Your task to perform on an android device: change the clock display to digital Image 0: 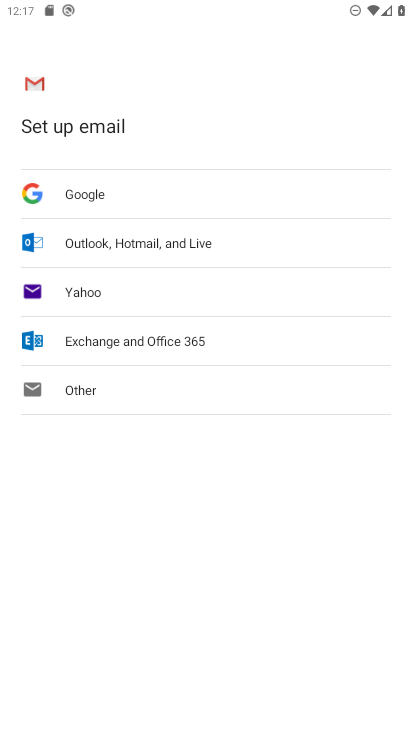
Step 0: drag from (240, 562) to (245, 385)
Your task to perform on an android device: change the clock display to digital Image 1: 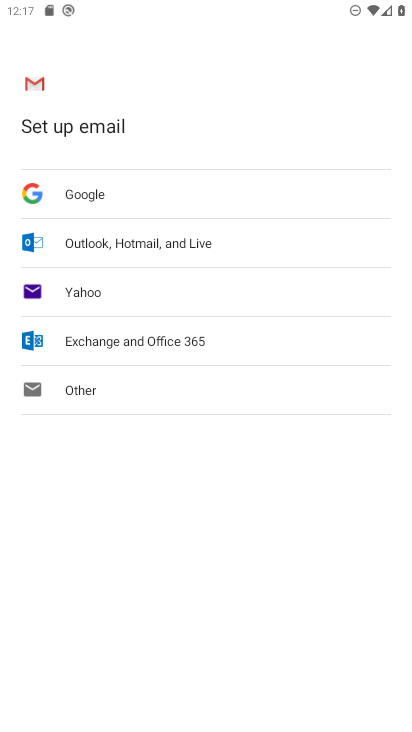
Step 1: press home button
Your task to perform on an android device: change the clock display to digital Image 2: 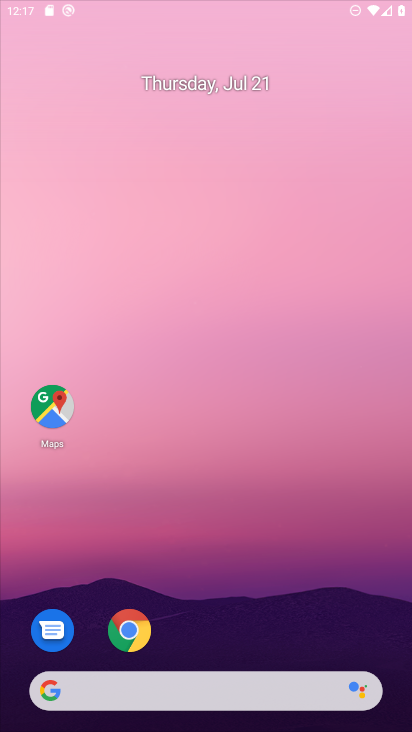
Step 2: drag from (187, 619) to (211, 319)
Your task to perform on an android device: change the clock display to digital Image 3: 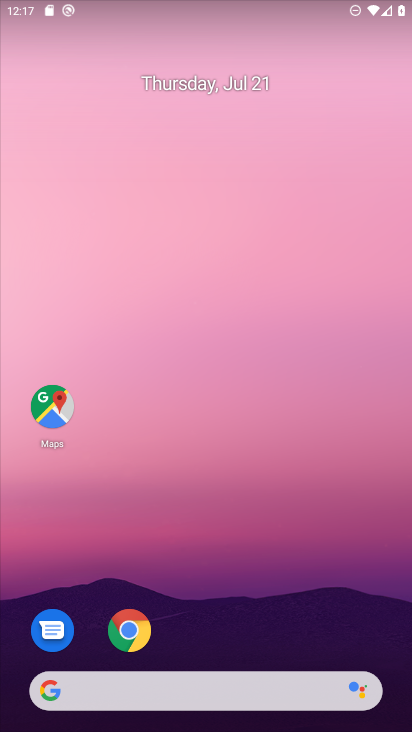
Step 3: drag from (203, 622) to (214, 248)
Your task to perform on an android device: change the clock display to digital Image 4: 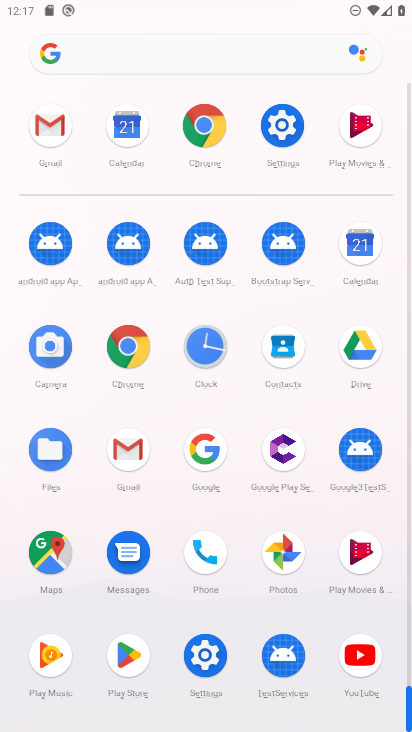
Step 4: click (194, 335)
Your task to perform on an android device: change the clock display to digital Image 5: 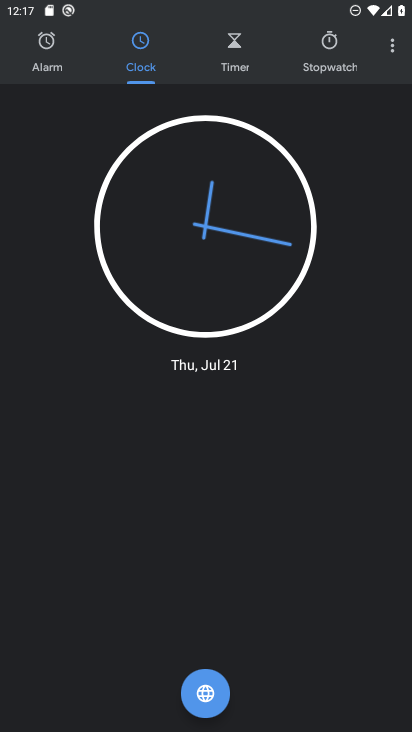
Step 5: drag from (58, 497) to (171, 152)
Your task to perform on an android device: change the clock display to digital Image 6: 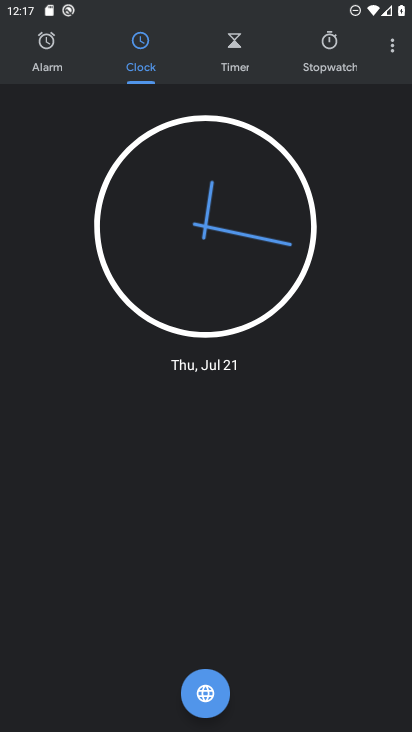
Step 6: click (382, 49)
Your task to perform on an android device: change the clock display to digital Image 7: 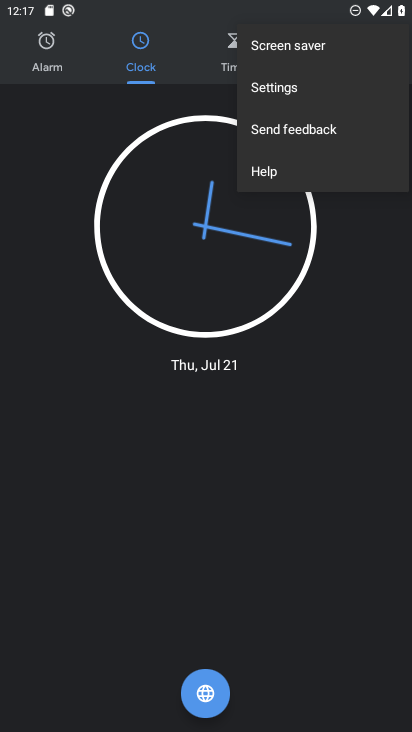
Step 7: click (316, 77)
Your task to perform on an android device: change the clock display to digital Image 8: 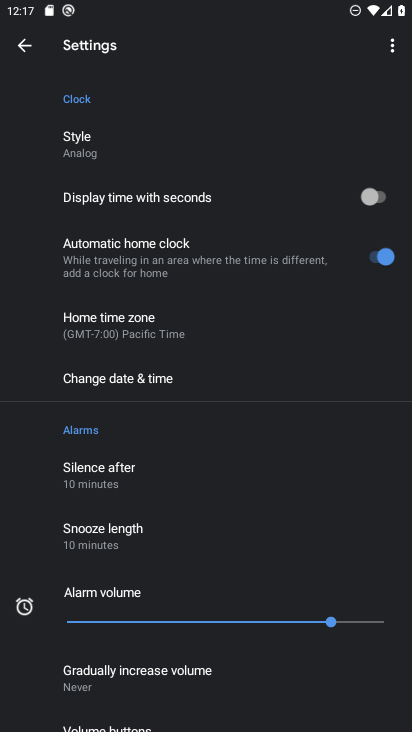
Step 8: click (161, 202)
Your task to perform on an android device: change the clock display to digital Image 9: 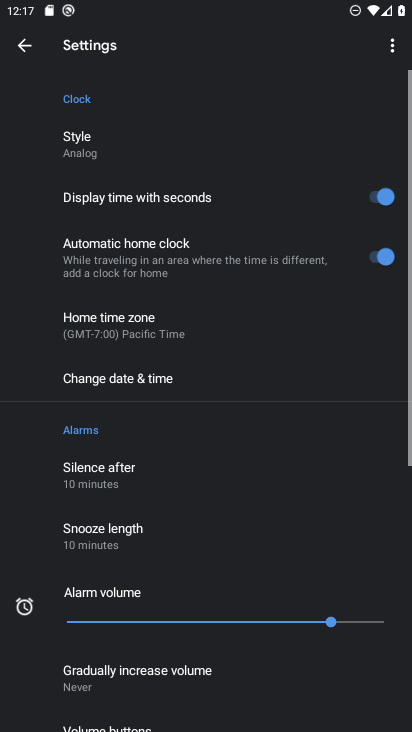
Step 9: click (296, 198)
Your task to perform on an android device: change the clock display to digital Image 10: 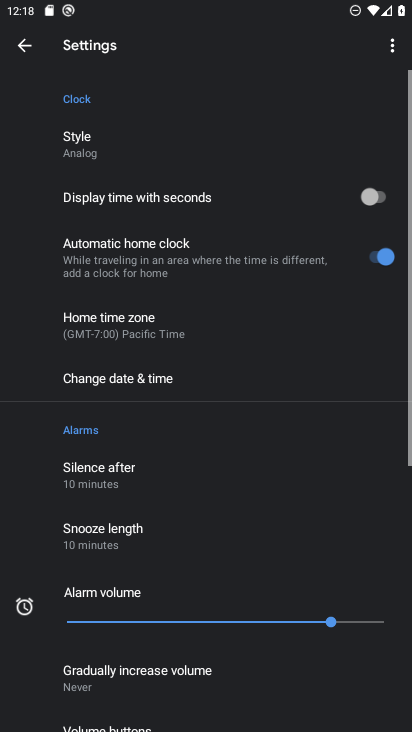
Step 10: click (97, 148)
Your task to perform on an android device: change the clock display to digital Image 11: 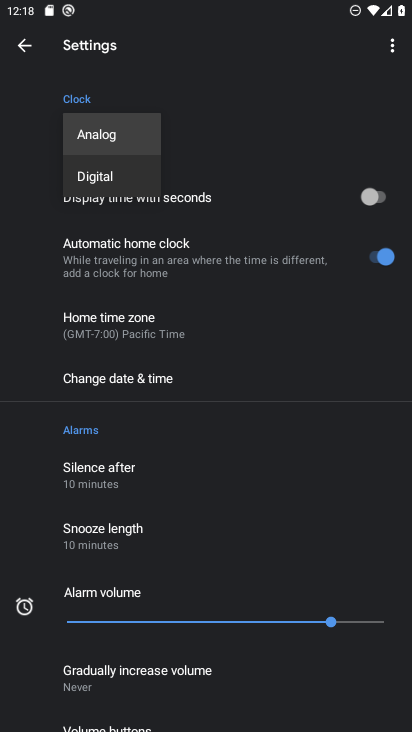
Step 11: click (120, 170)
Your task to perform on an android device: change the clock display to digital Image 12: 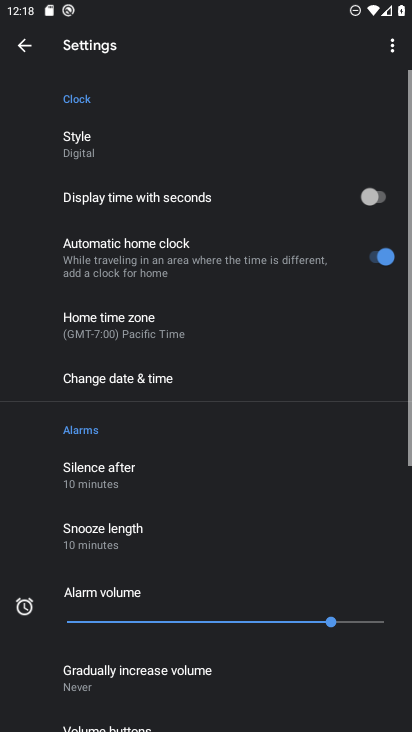
Step 12: task complete